Your task to perform on an android device: install app "Google Translate" Image 0: 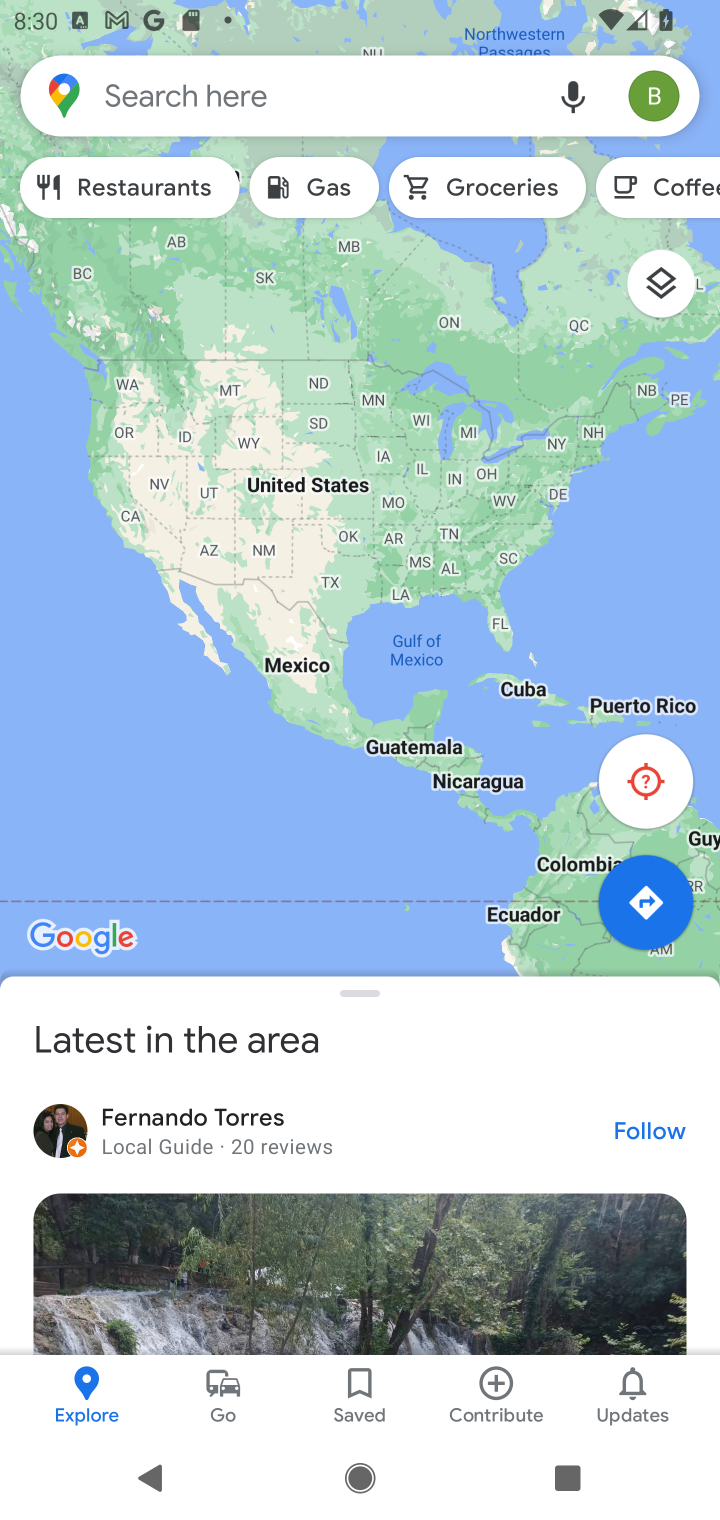
Step 0: press home button
Your task to perform on an android device: install app "Google Translate" Image 1: 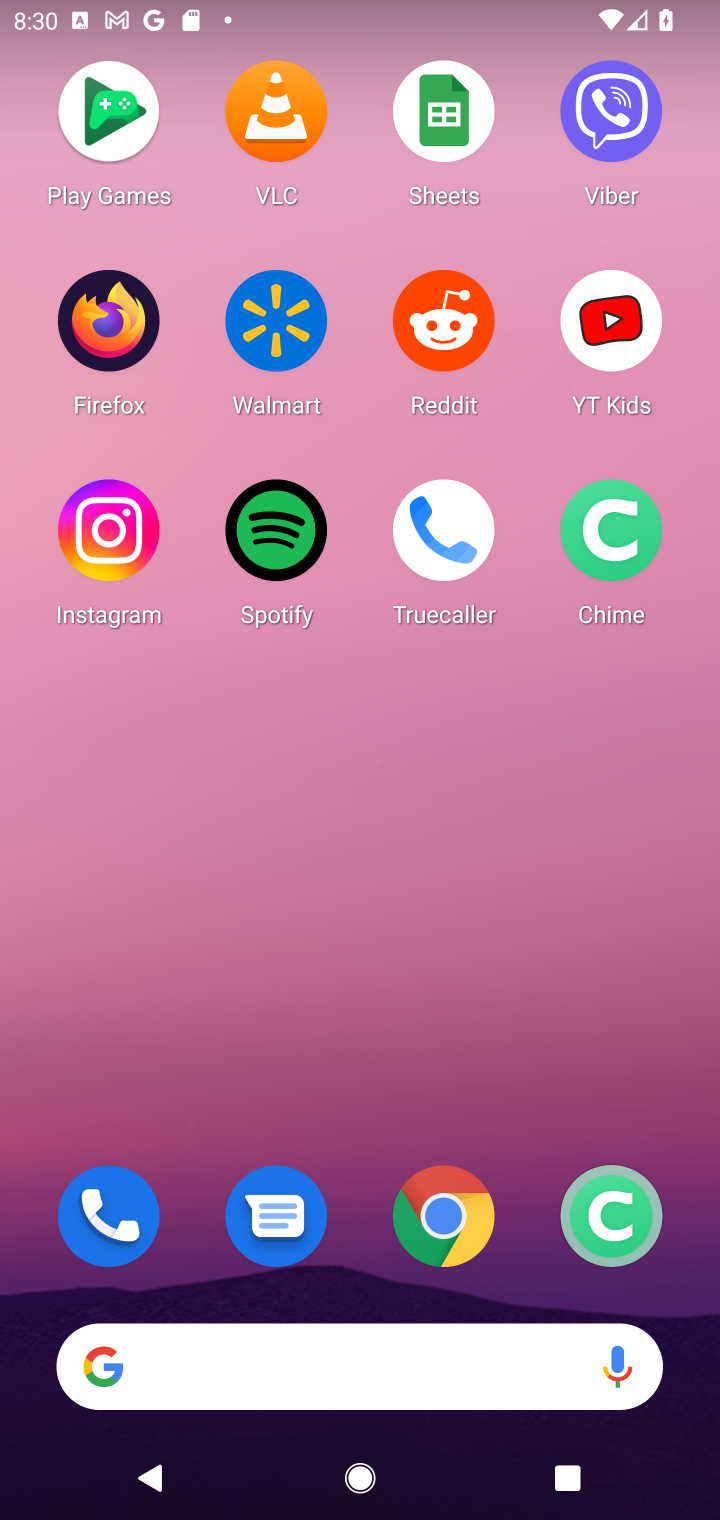
Step 1: drag from (319, 1111) to (514, 159)
Your task to perform on an android device: install app "Google Translate" Image 2: 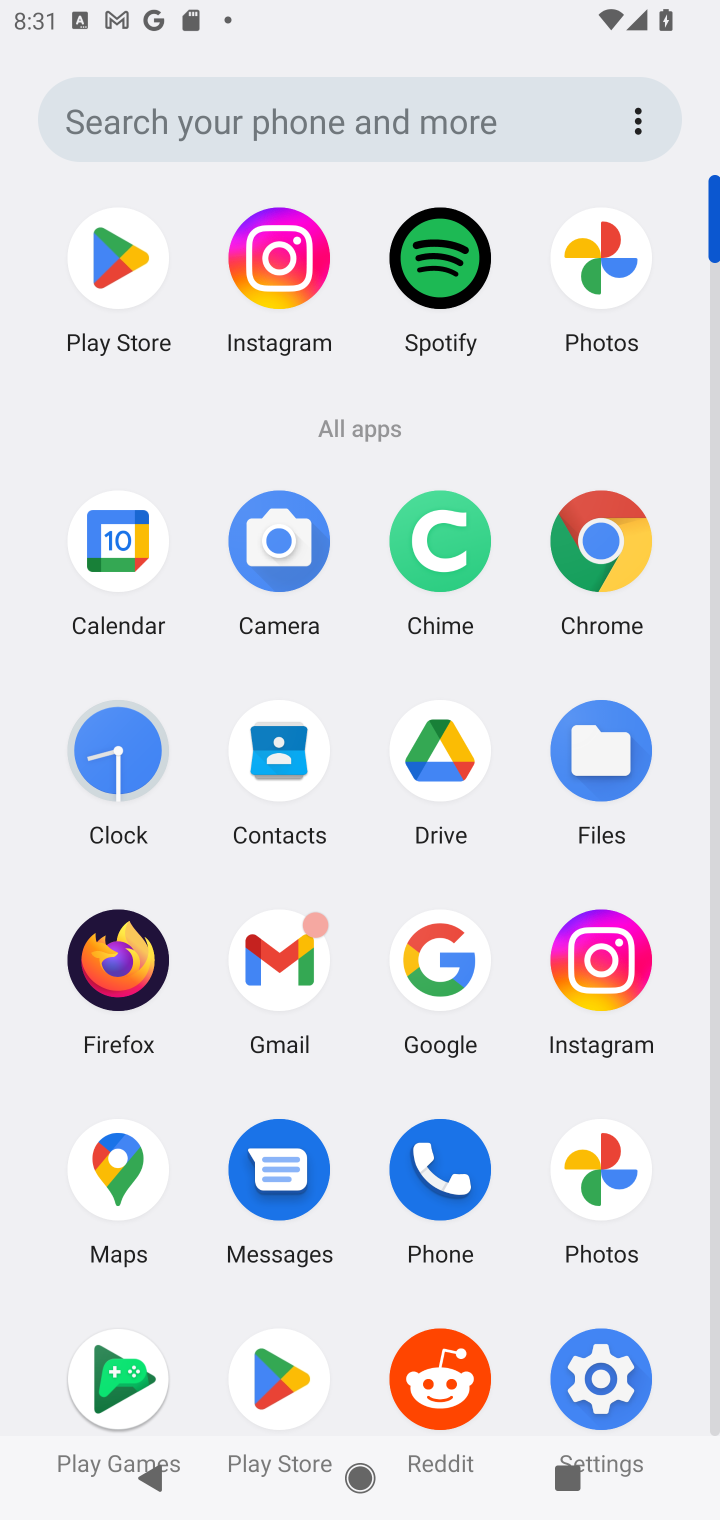
Step 2: click (111, 258)
Your task to perform on an android device: install app "Google Translate" Image 3: 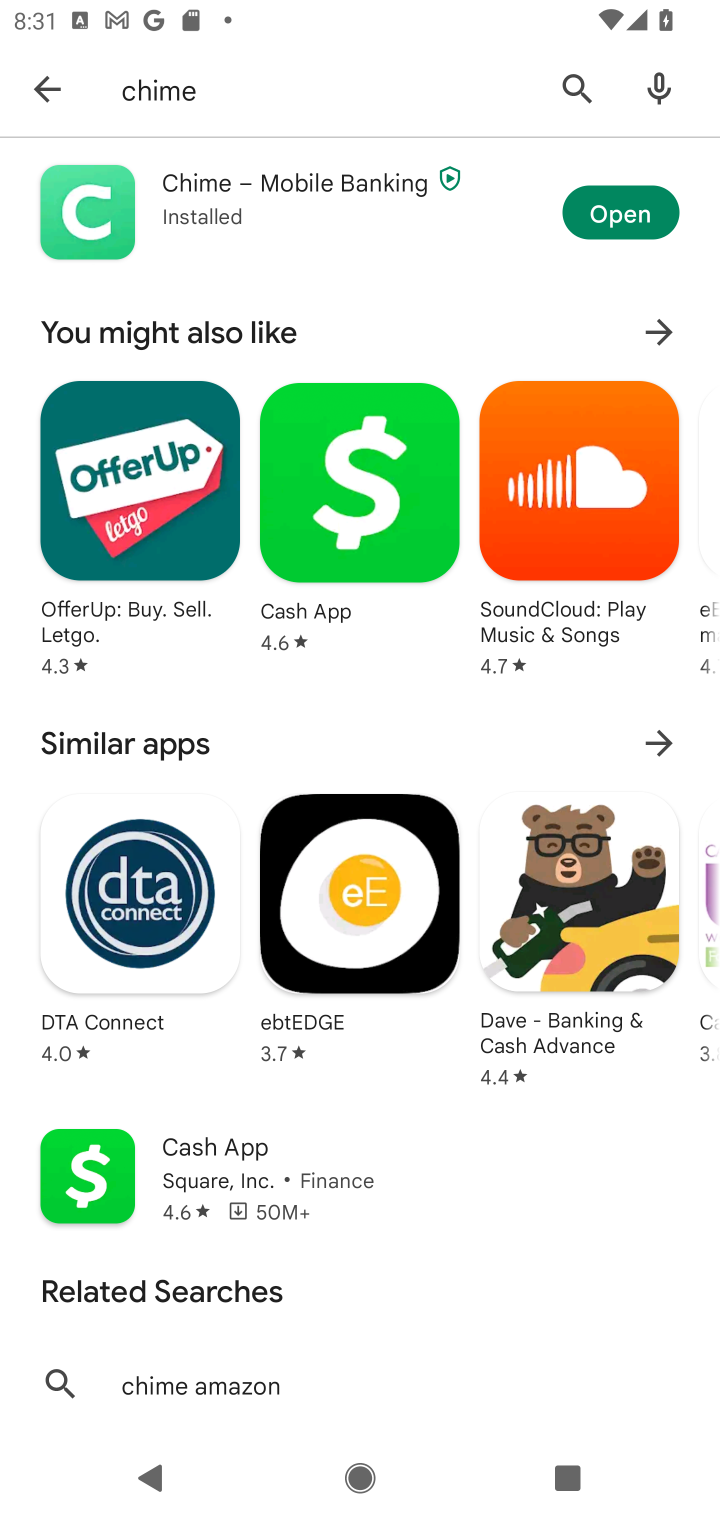
Step 3: click (581, 80)
Your task to perform on an android device: install app "Google Translate" Image 4: 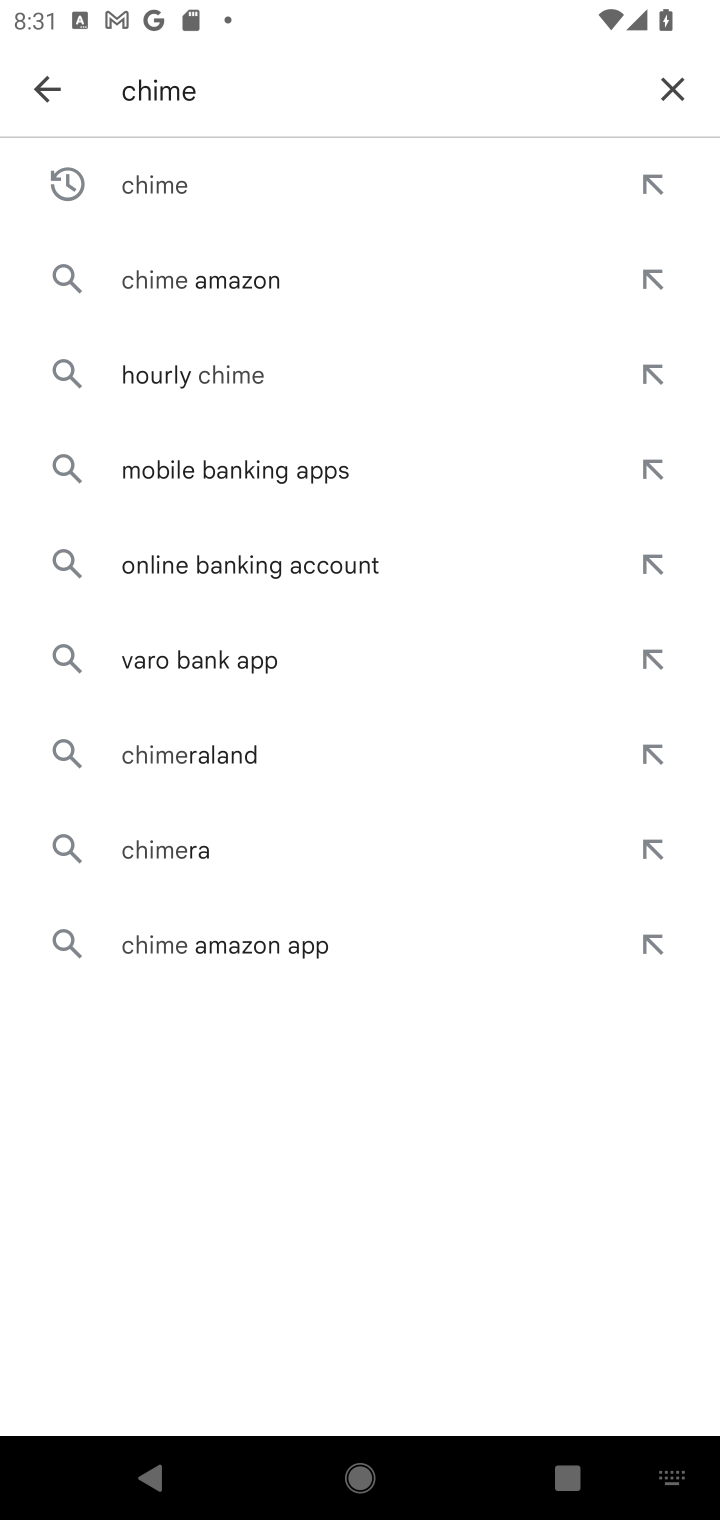
Step 4: click (693, 98)
Your task to perform on an android device: install app "Google Translate" Image 5: 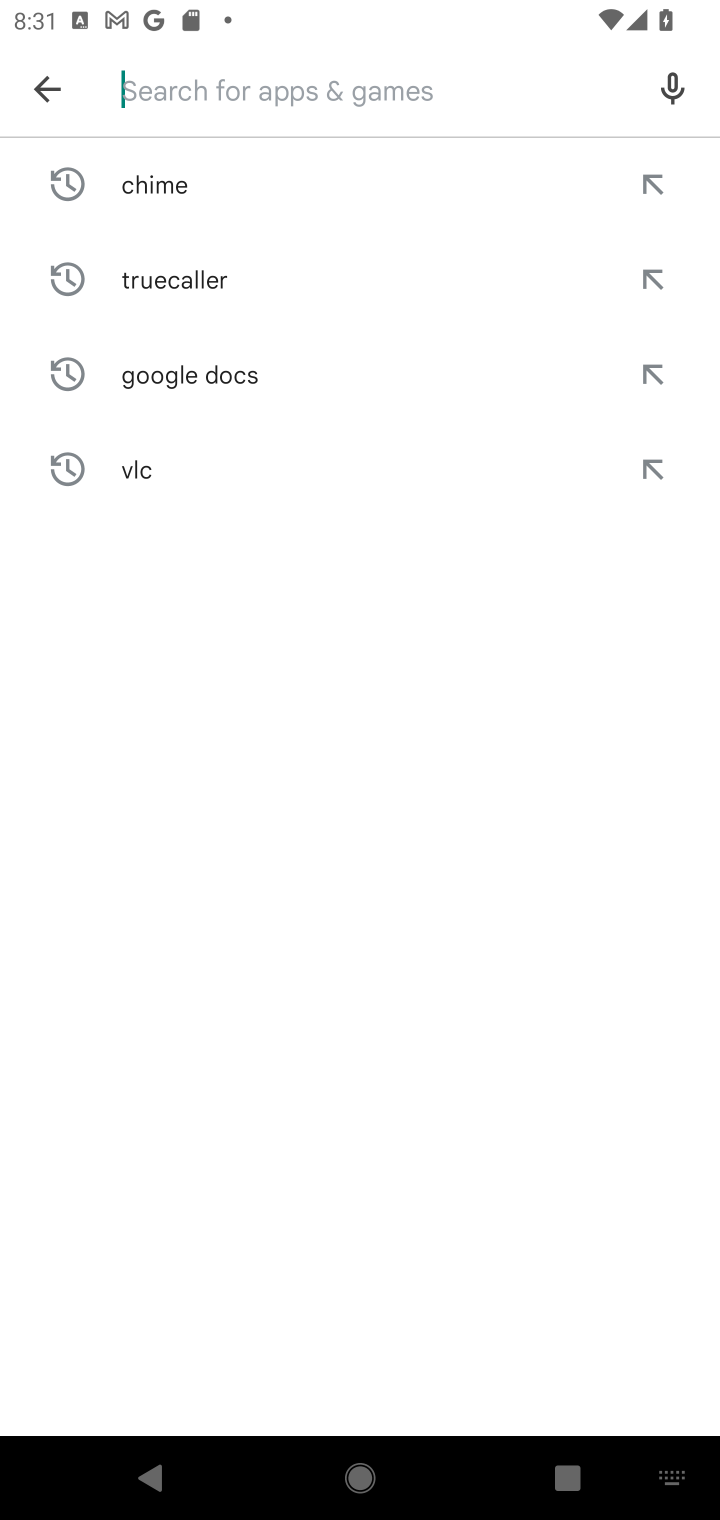
Step 5: click (348, 82)
Your task to perform on an android device: install app "Google Translate" Image 6: 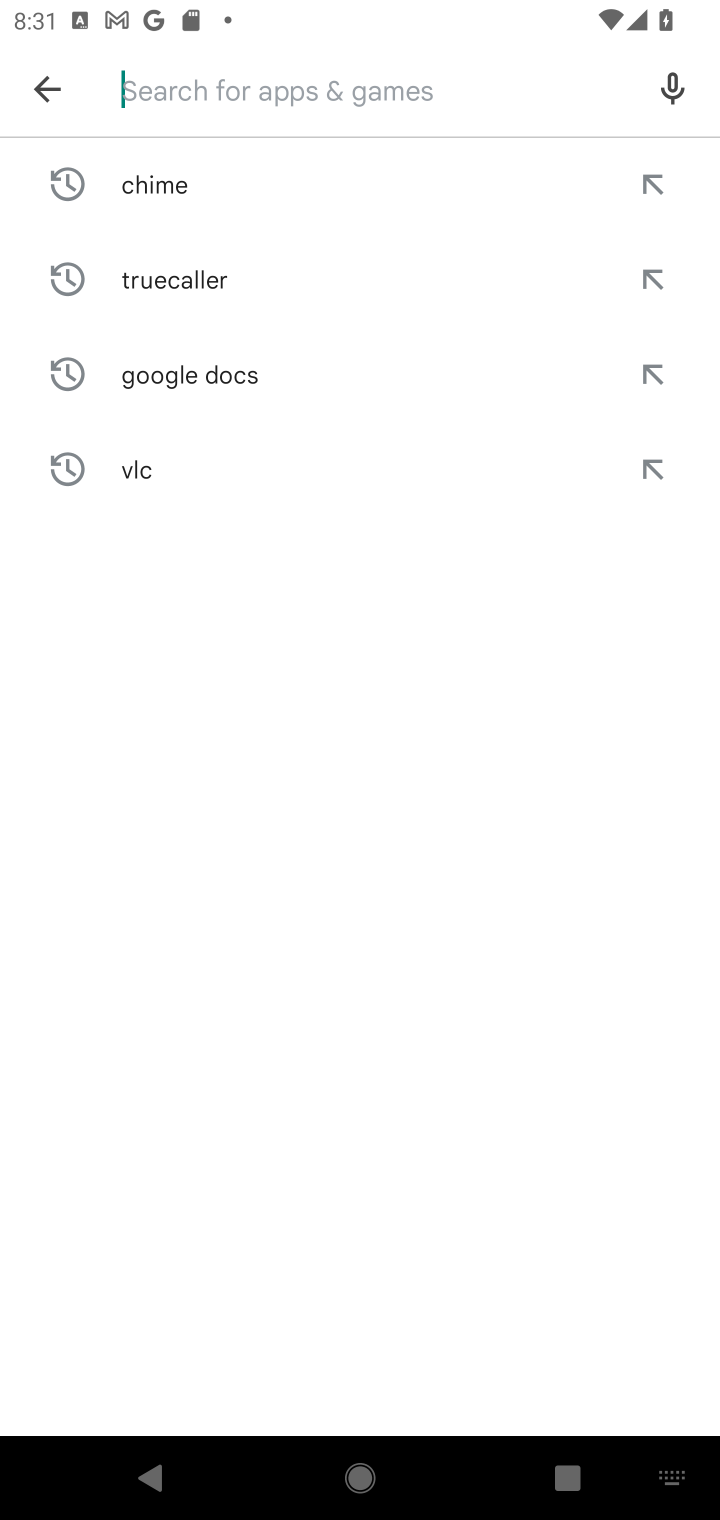
Step 6: type "Google Translate"
Your task to perform on an android device: install app "Google Translate" Image 7: 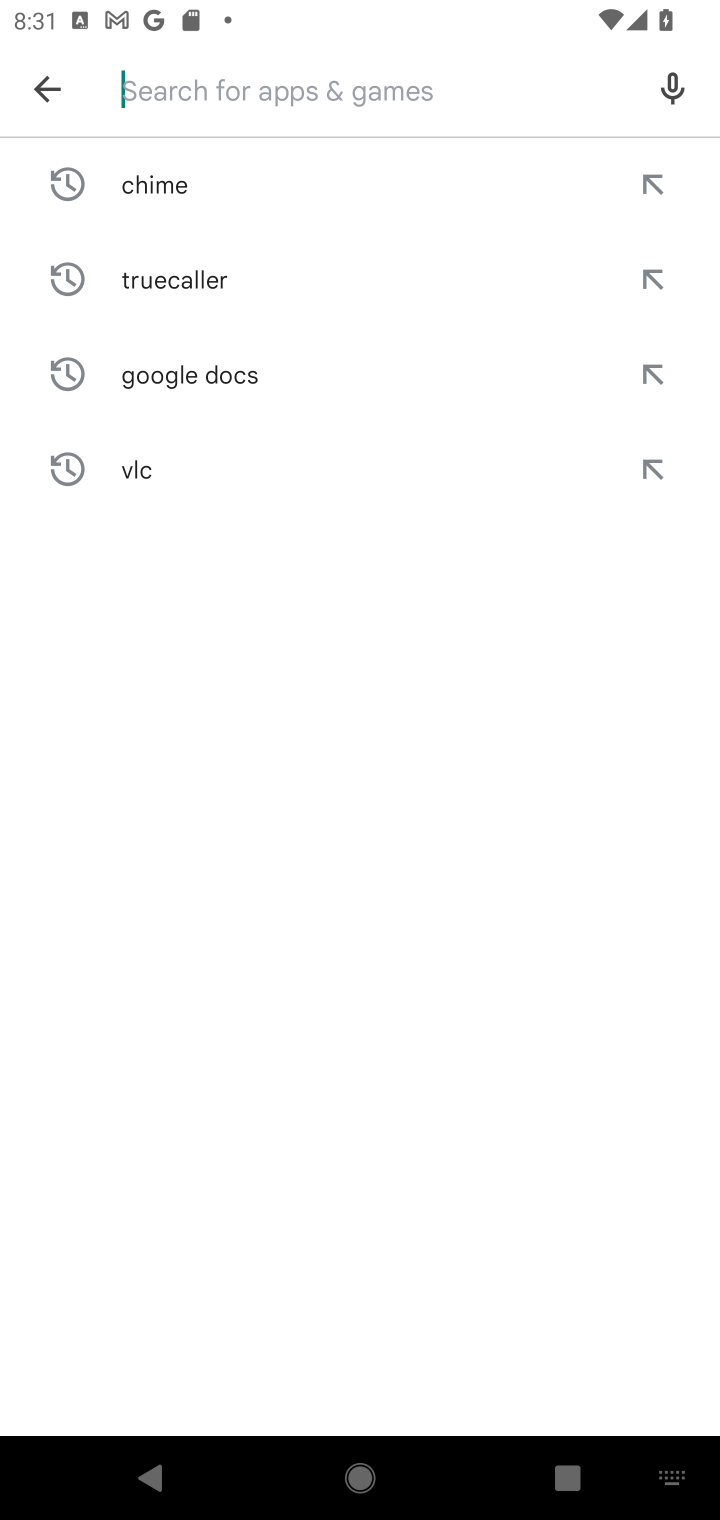
Step 7: click (463, 768)
Your task to perform on an android device: install app "Google Translate" Image 8: 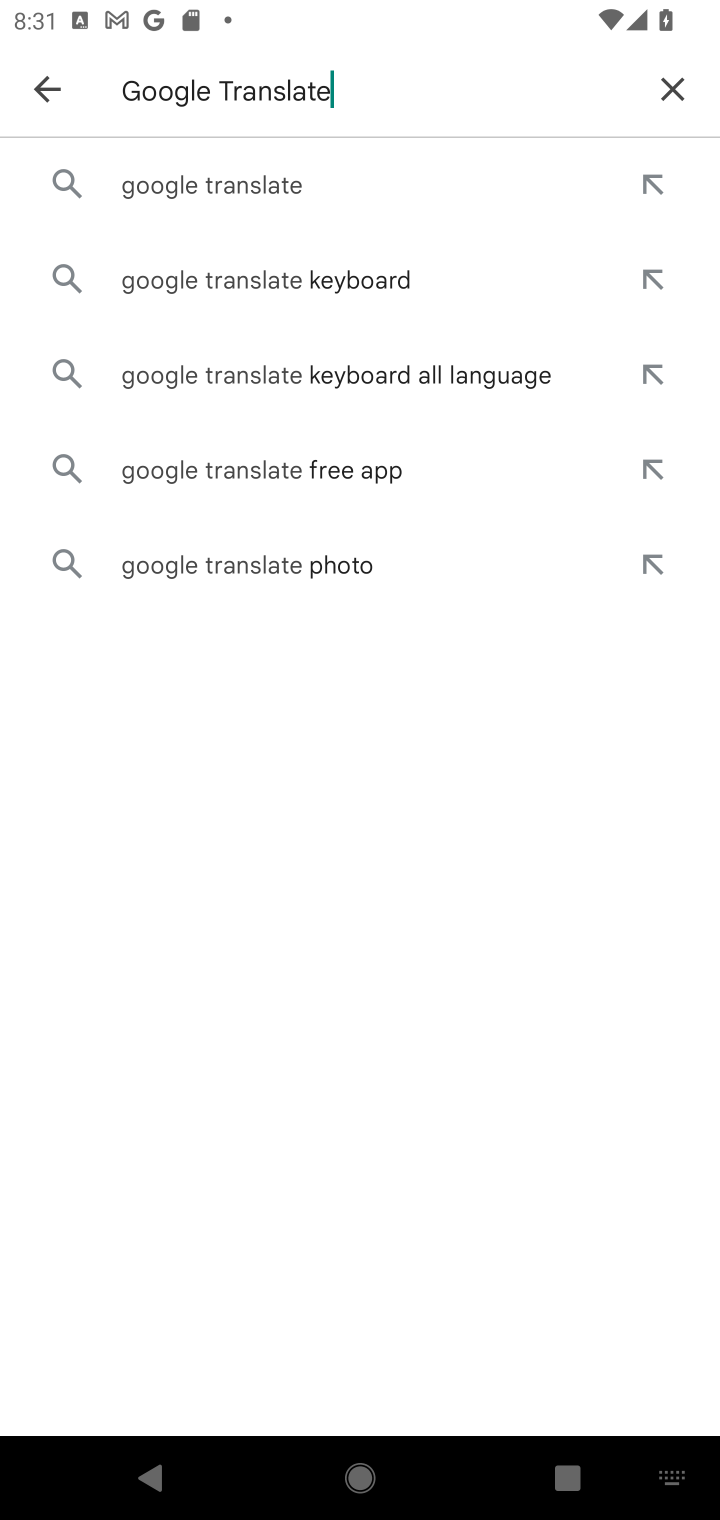
Step 8: click (285, 193)
Your task to perform on an android device: install app "Google Translate" Image 9: 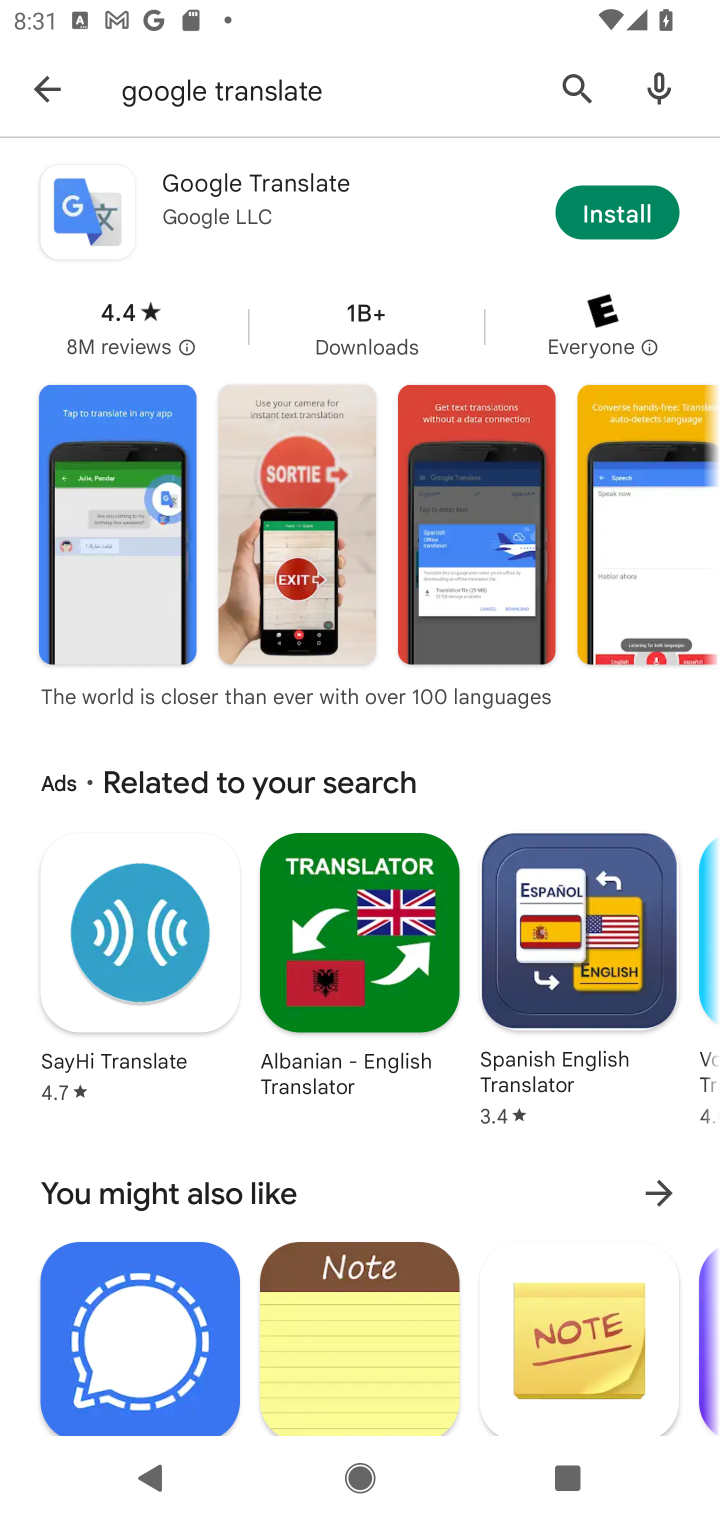
Step 9: click (604, 196)
Your task to perform on an android device: install app "Google Translate" Image 10: 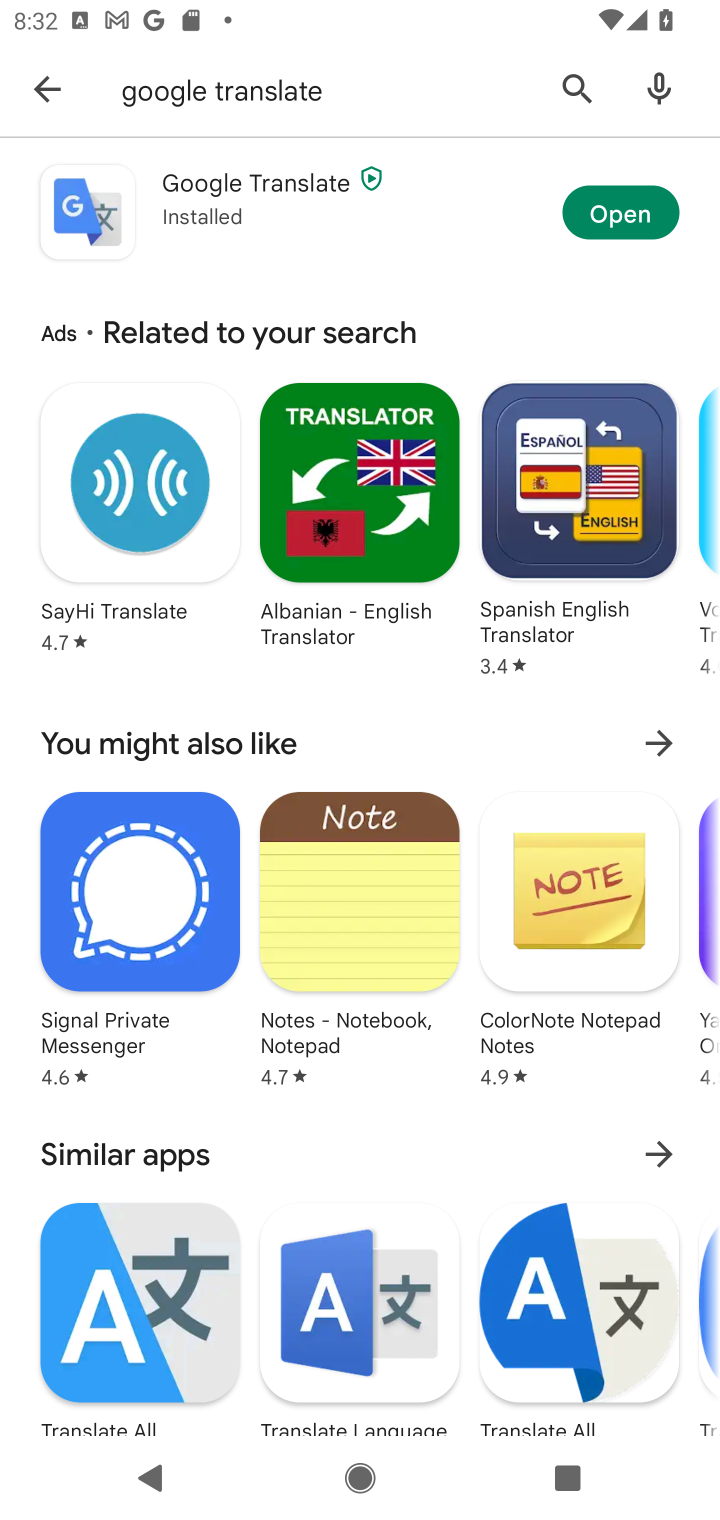
Step 10: click (594, 203)
Your task to perform on an android device: install app "Google Translate" Image 11: 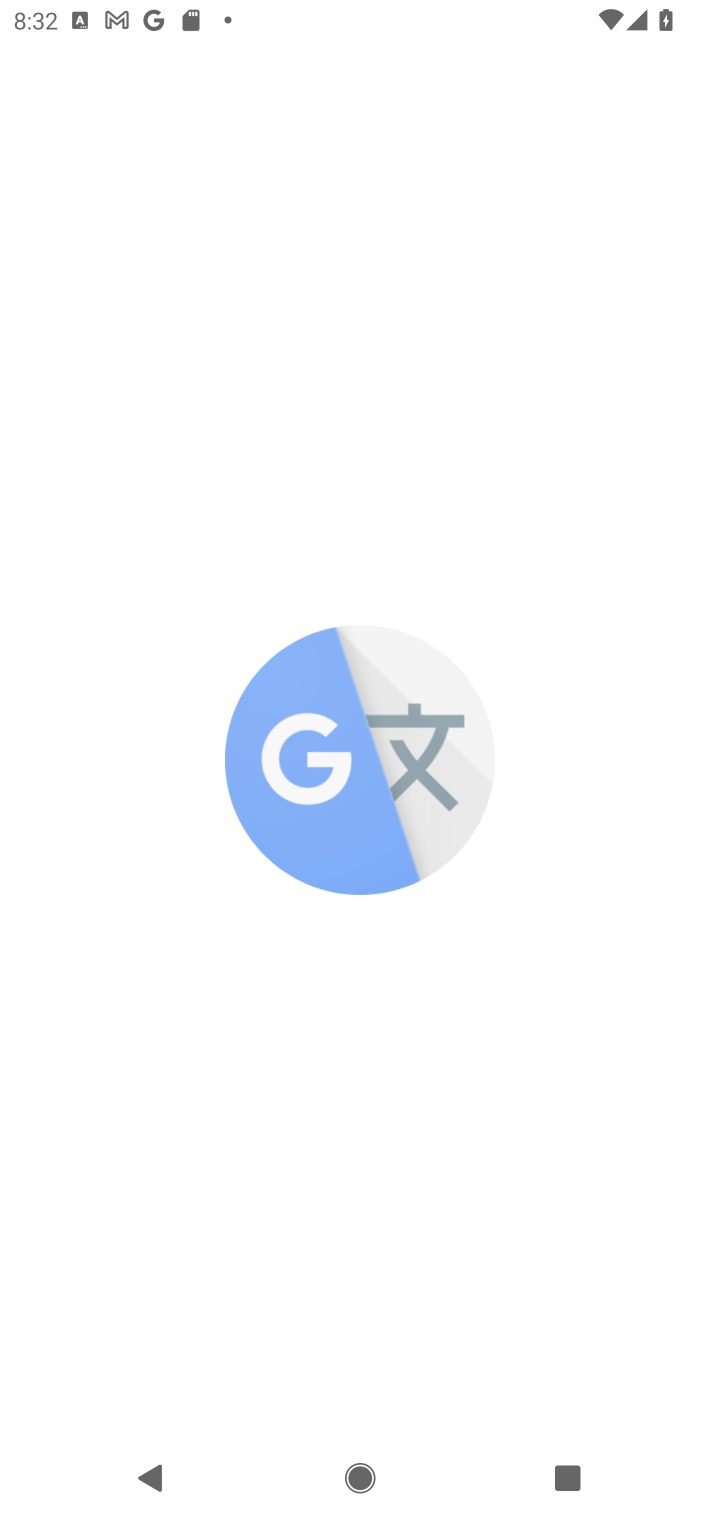
Step 11: task complete